Your task to perform on an android device: delete the emails in spam in the gmail app Image 0: 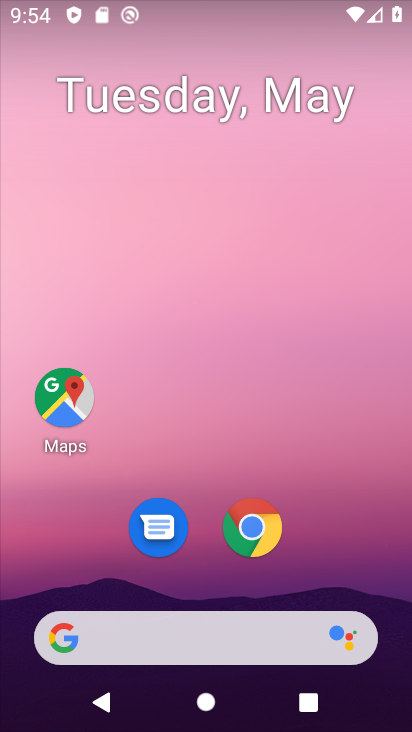
Step 0: drag from (202, 568) to (241, 59)
Your task to perform on an android device: delete the emails in spam in the gmail app Image 1: 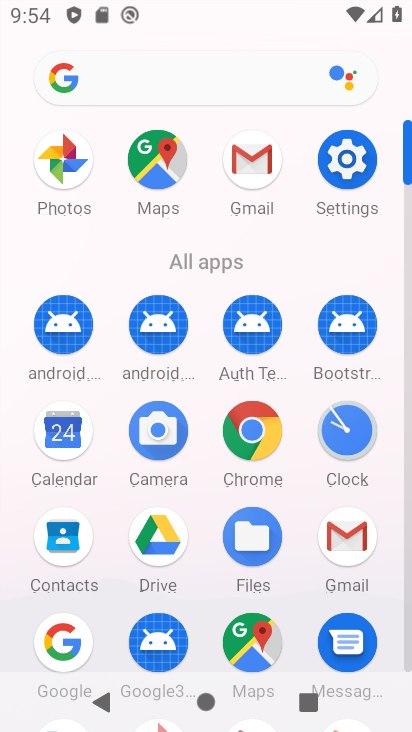
Step 1: click (250, 155)
Your task to perform on an android device: delete the emails in spam in the gmail app Image 2: 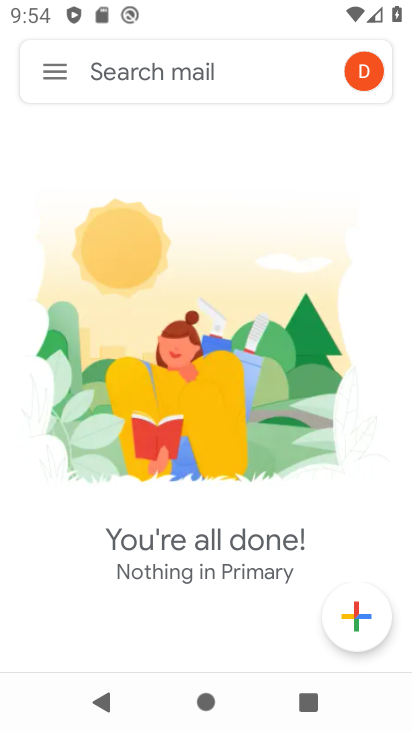
Step 2: click (58, 72)
Your task to perform on an android device: delete the emails in spam in the gmail app Image 3: 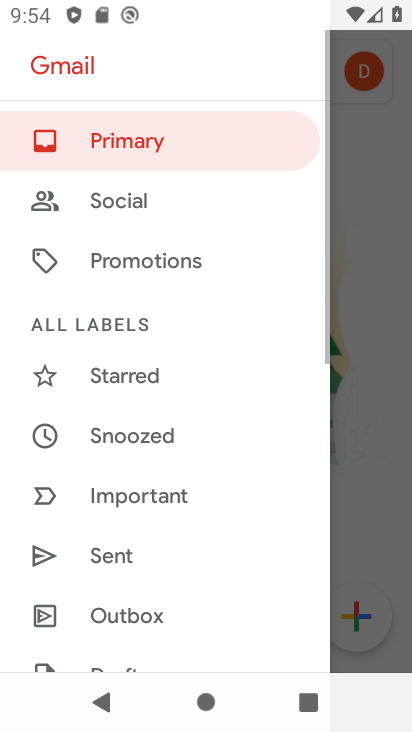
Step 3: drag from (180, 527) to (186, 199)
Your task to perform on an android device: delete the emails in spam in the gmail app Image 4: 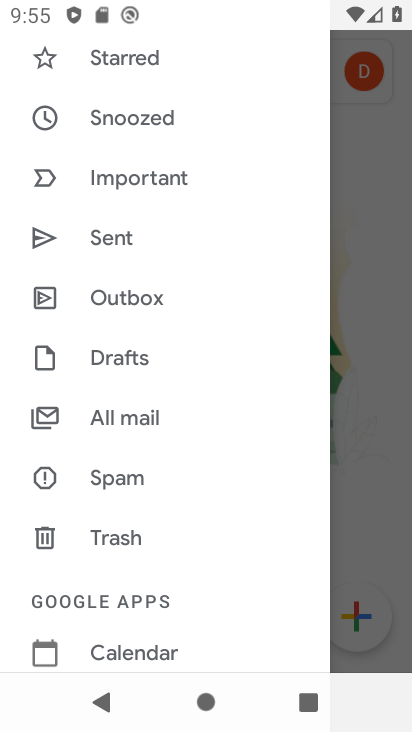
Step 4: click (158, 488)
Your task to perform on an android device: delete the emails in spam in the gmail app Image 5: 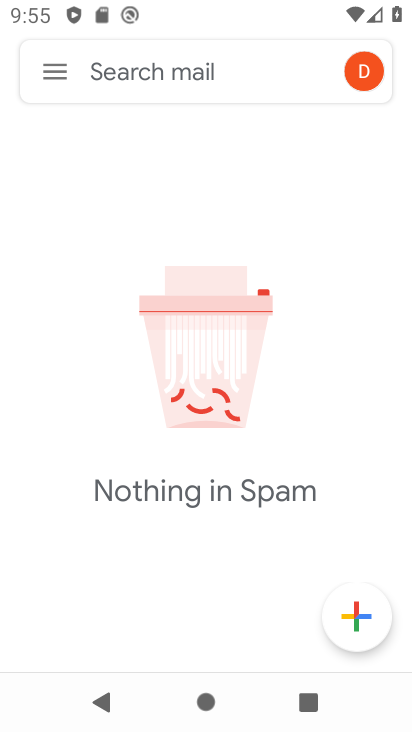
Step 5: task complete